Your task to perform on an android device: Search for vegetarian restaurants on Maps Image 0: 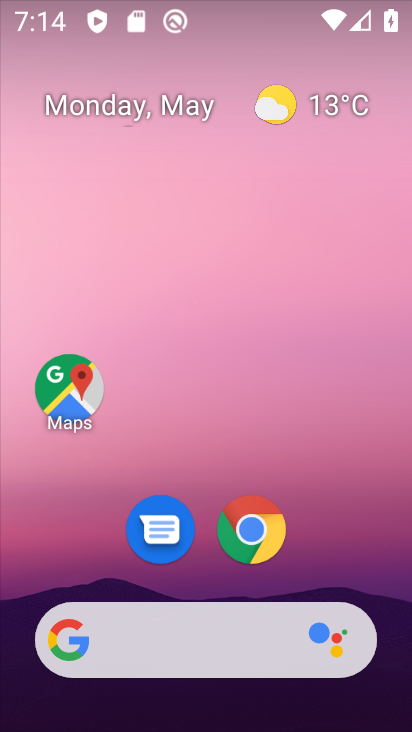
Step 0: drag from (273, 642) to (297, 132)
Your task to perform on an android device: Search for vegetarian restaurants on Maps Image 1: 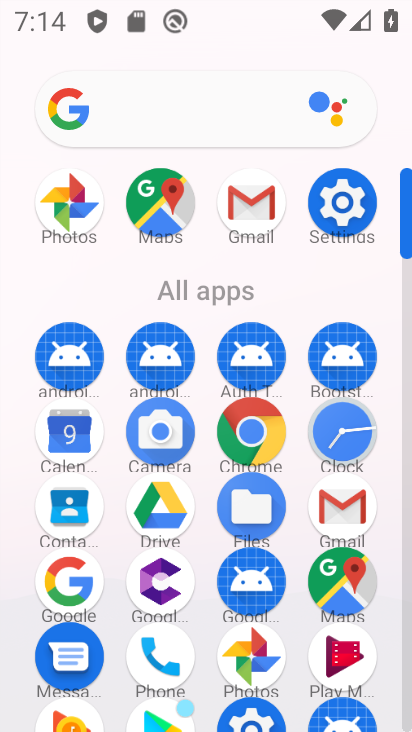
Step 1: click (153, 232)
Your task to perform on an android device: Search for vegetarian restaurants on Maps Image 2: 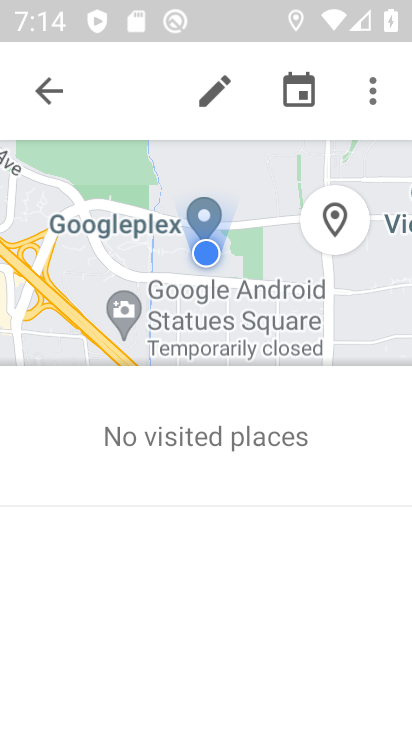
Step 2: click (47, 103)
Your task to perform on an android device: Search for vegetarian restaurants on Maps Image 3: 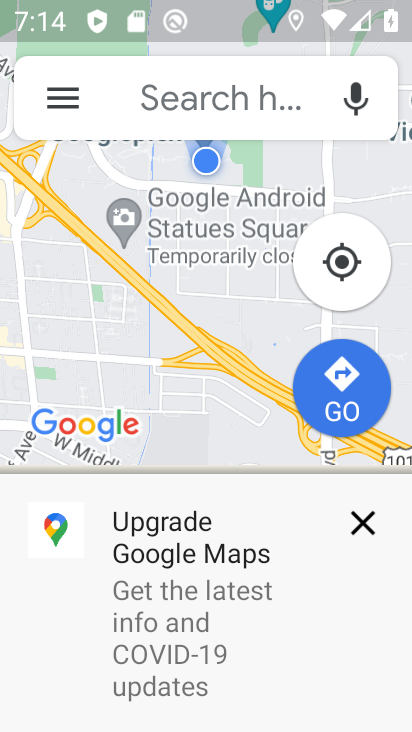
Step 3: click (356, 509)
Your task to perform on an android device: Search for vegetarian restaurants on Maps Image 4: 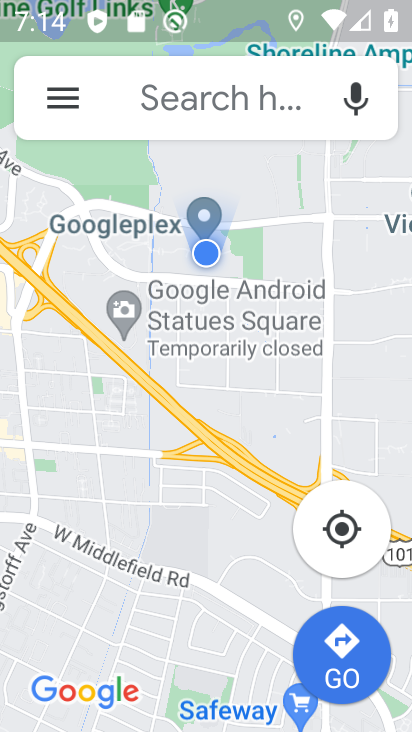
Step 4: click (163, 101)
Your task to perform on an android device: Search for vegetarian restaurants on Maps Image 5: 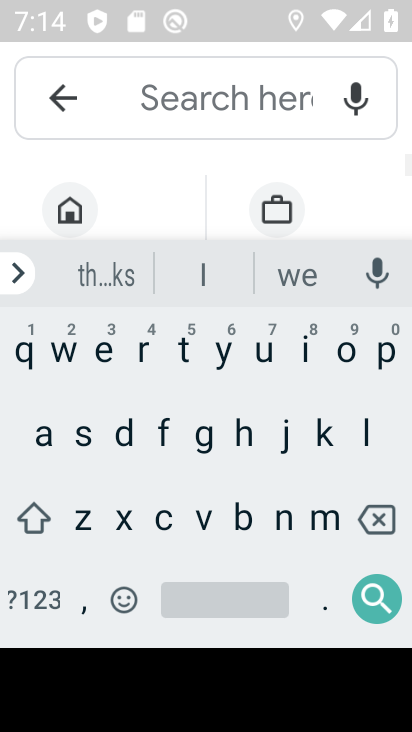
Step 5: click (210, 517)
Your task to perform on an android device: Search for vegetarian restaurants on Maps Image 6: 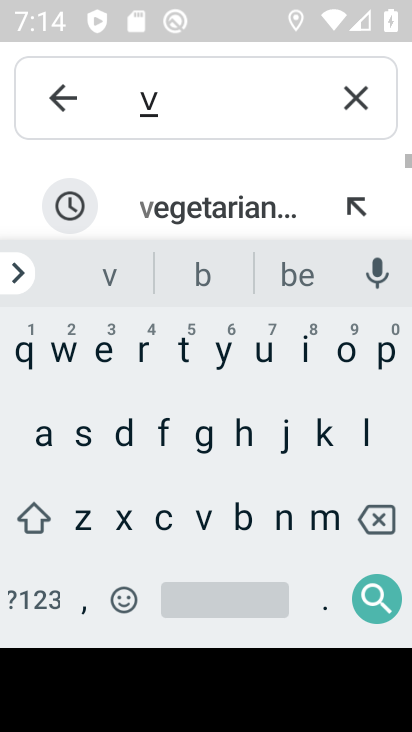
Step 6: click (209, 218)
Your task to perform on an android device: Search for vegetarian restaurants on Maps Image 7: 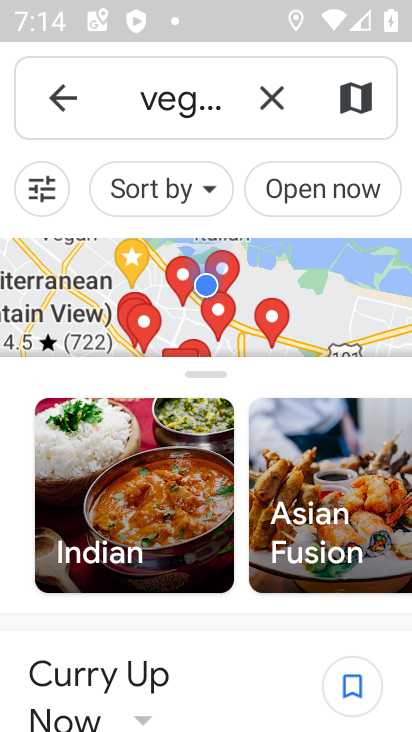
Step 7: click (187, 325)
Your task to perform on an android device: Search for vegetarian restaurants on Maps Image 8: 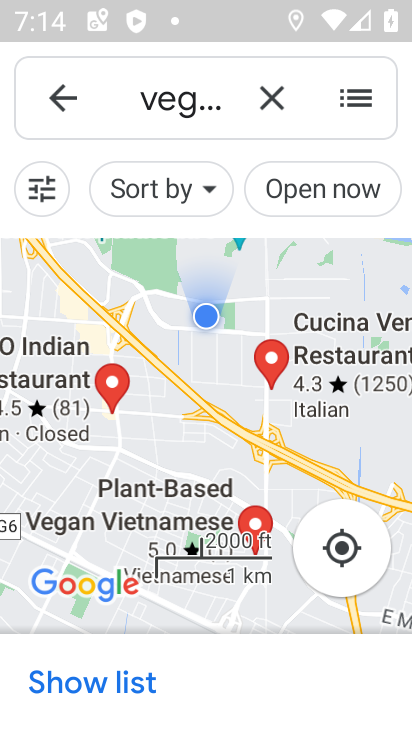
Step 8: task complete